Your task to perform on an android device: Open Yahoo.com Image 0: 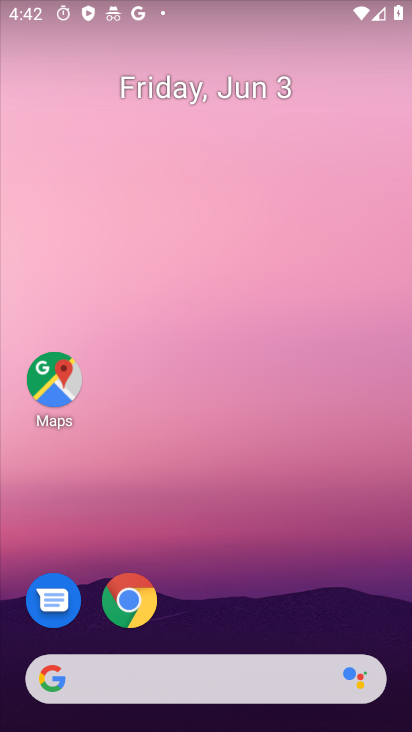
Step 0: click (129, 590)
Your task to perform on an android device: Open Yahoo.com Image 1: 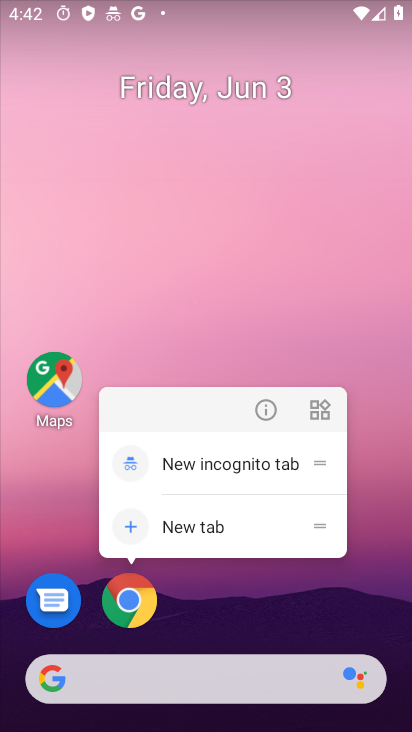
Step 1: click (129, 590)
Your task to perform on an android device: Open Yahoo.com Image 2: 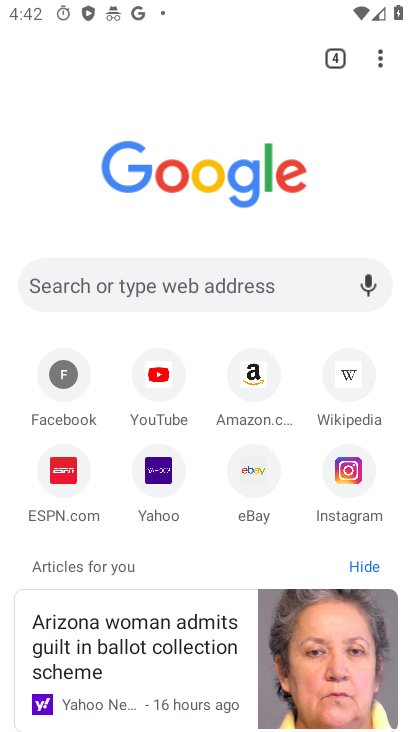
Step 2: click (210, 291)
Your task to perform on an android device: Open Yahoo.com Image 3: 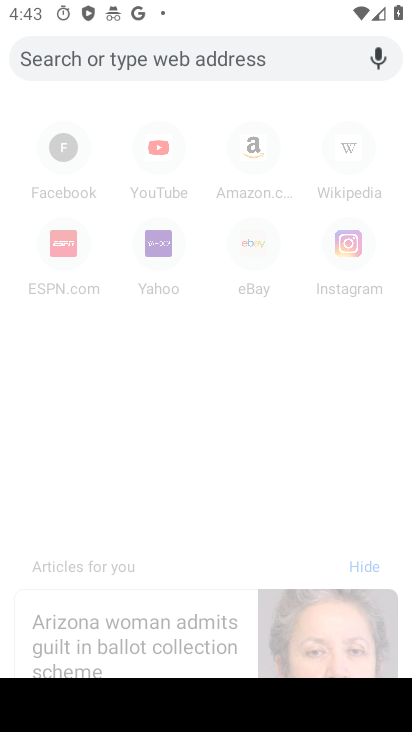
Step 3: press back button
Your task to perform on an android device: Open Yahoo.com Image 4: 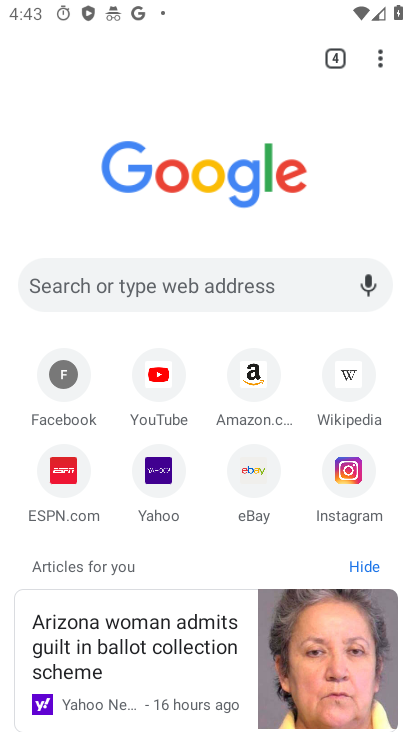
Step 4: click (88, 283)
Your task to perform on an android device: Open Yahoo.com Image 5: 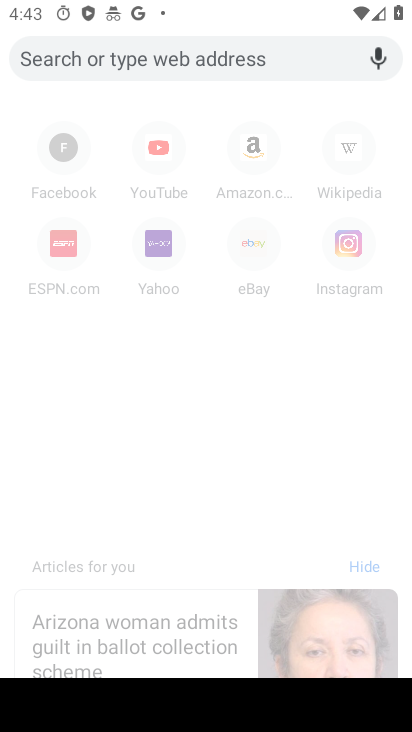
Step 5: type "Yahoo.com"
Your task to perform on an android device: Open Yahoo.com Image 6: 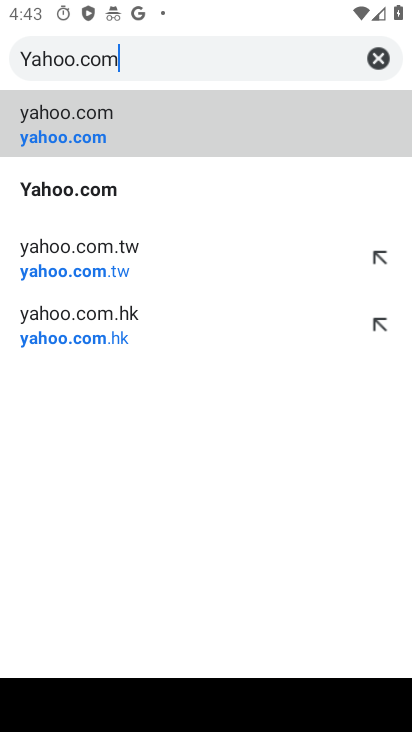
Step 6: click (55, 185)
Your task to perform on an android device: Open Yahoo.com Image 7: 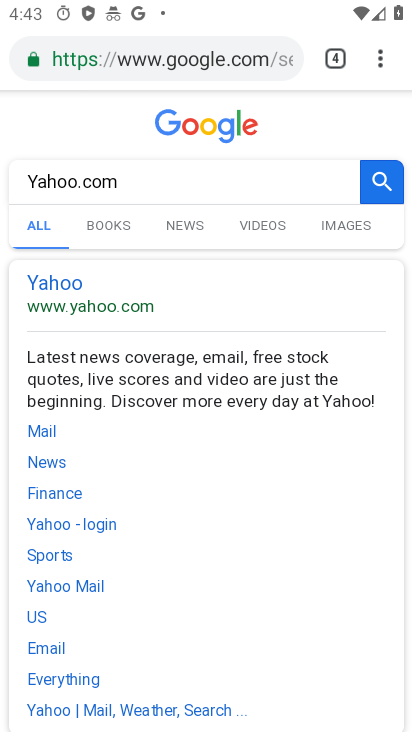
Step 7: task complete